Your task to perform on an android device: turn smart compose on in the gmail app Image 0: 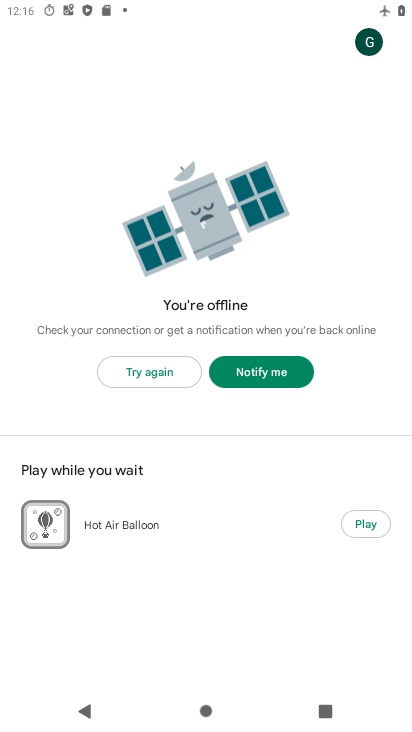
Step 0: press home button
Your task to perform on an android device: turn smart compose on in the gmail app Image 1: 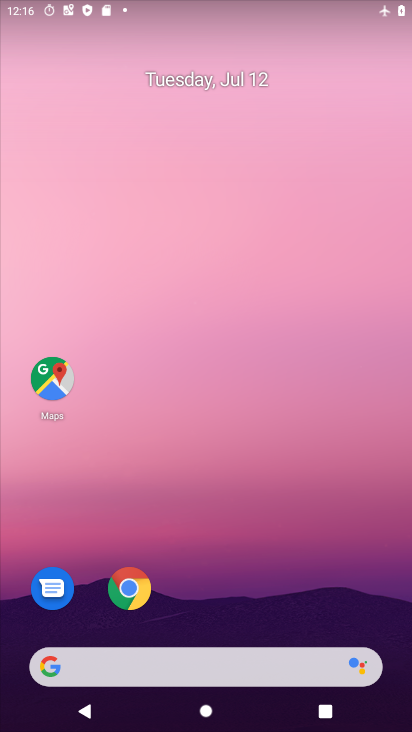
Step 1: drag from (336, 570) to (306, 170)
Your task to perform on an android device: turn smart compose on in the gmail app Image 2: 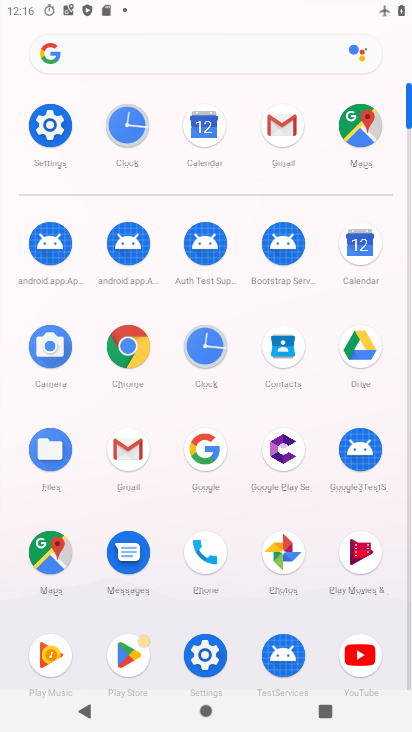
Step 2: click (283, 139)
Your task to perform on an android device: turn smart compose on in the gmail app Image 3: 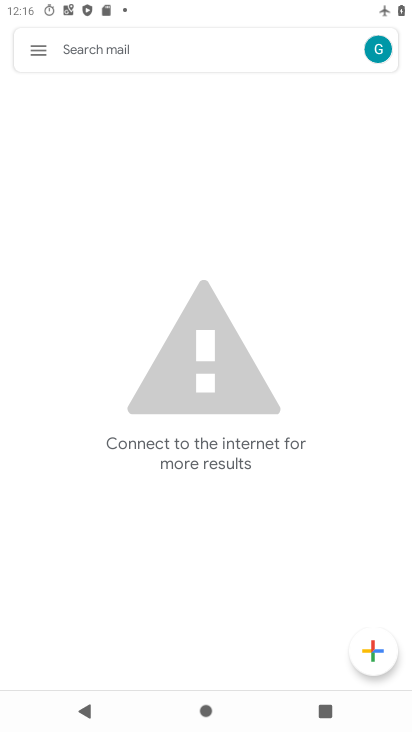
Step 3: click (37, 43)
Your task to perform on an android device: turn smart compose on in the gmail app Image 4: 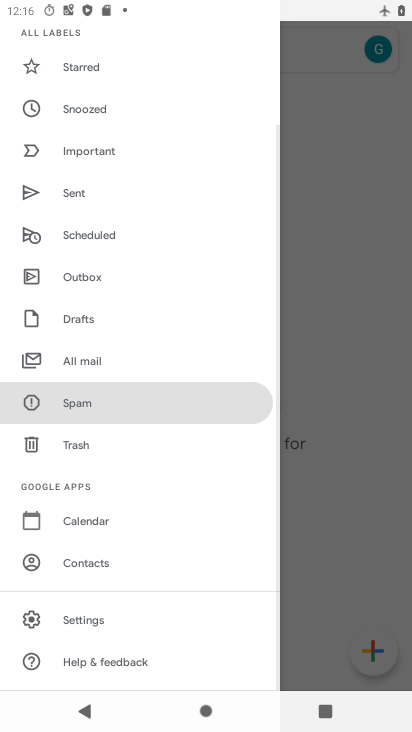
Step 4: click (81, 617)
Your task to perform on an android device: turn smart compose on in the gmail app Image 5: 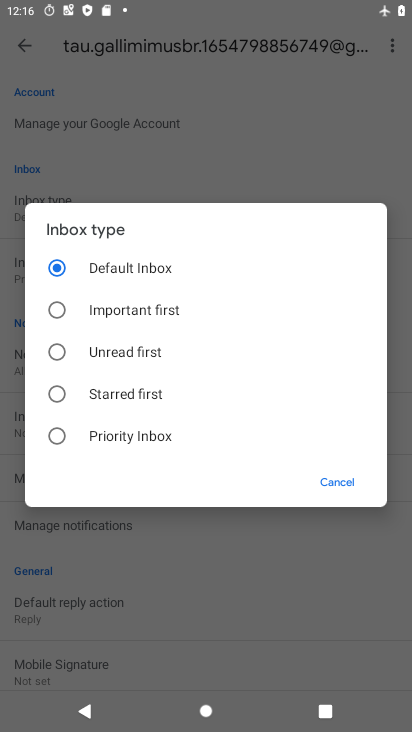
Step 5: click (346, 485)
Your task to perform on an android device: turn smart compose on in the gmail app Image 6: 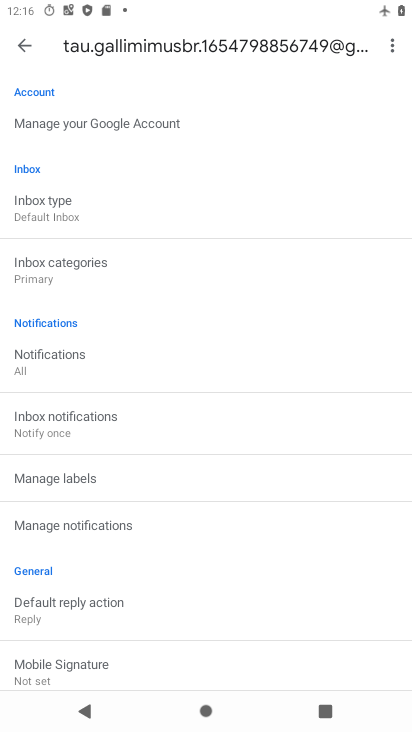
Step 6: task complete